Your task to perform on an android device: Open the Play Movies app and select the watchlist tab. Image 0: 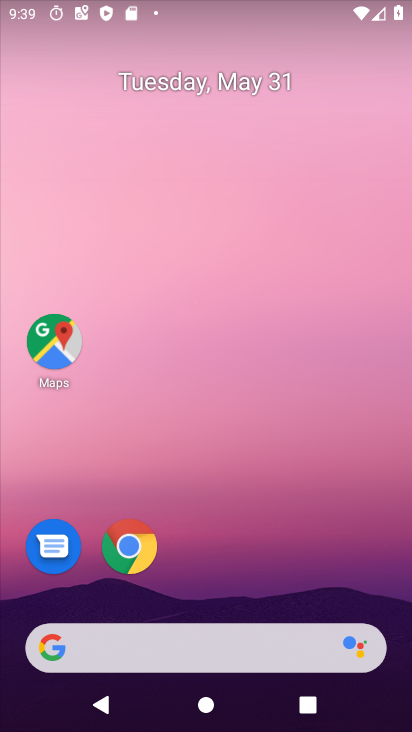
Step 0: drag from (246, 562) to (207, 113)
Your task to perform on an android device: Open the Play Movies app and select the watchlist tab. Image 1: 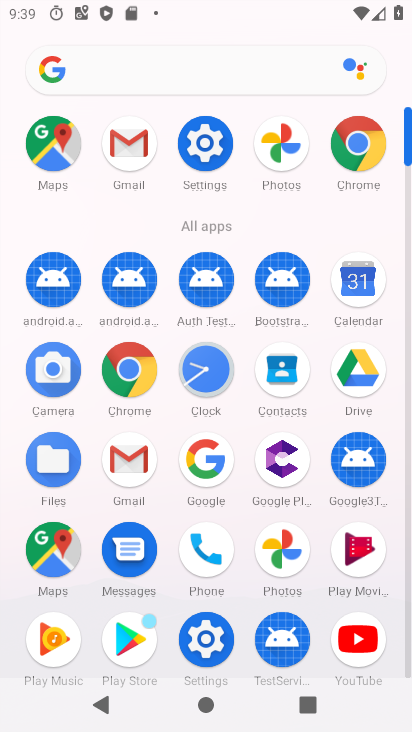
Step 1: click (359, 558)
Your task to perform on an android device: Open the Play Movies app and select the watchlist tab. Image 2: 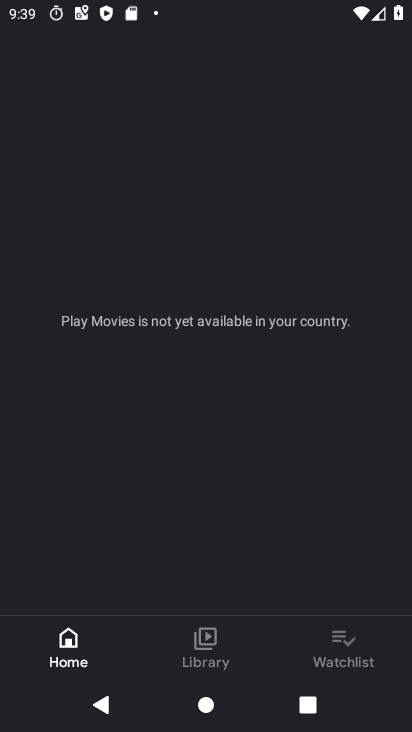
Step 2: click (347, 649)
Your task to perform on an android device: Open the Play Movies app and select the watchlist tab. Image 3: 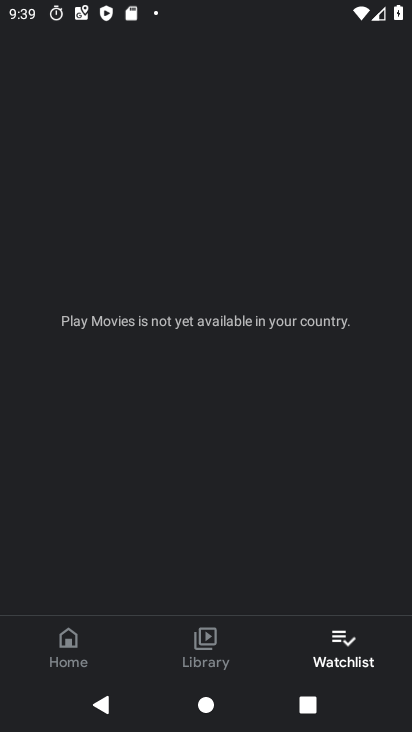
Step 3: task complete